Your task to perform on an android device: change text size in settings app Image 0: 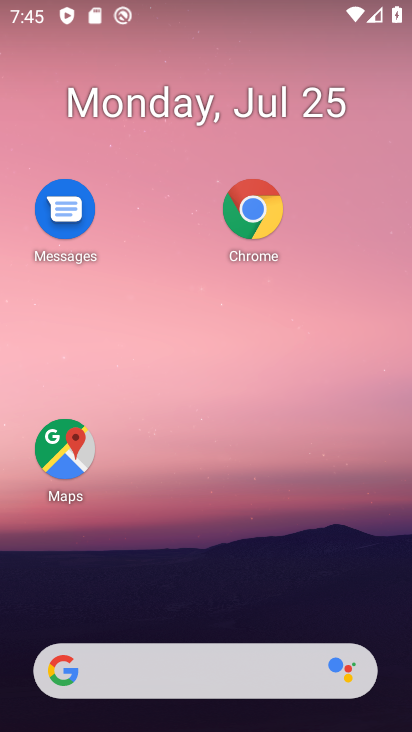
Step 0: drag from (216, 614) to (135, 73)
Your task to perform on an android device: change text size in settings app Image 1: 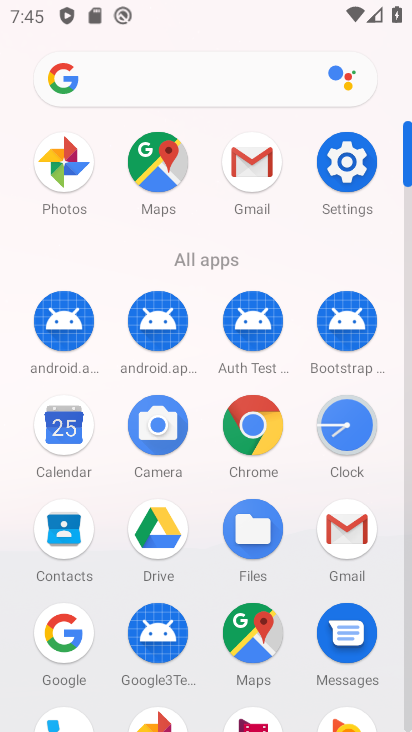
Step 1: click (355, 193)
Your task to perform on an android device: change text size in settings app Image 2: 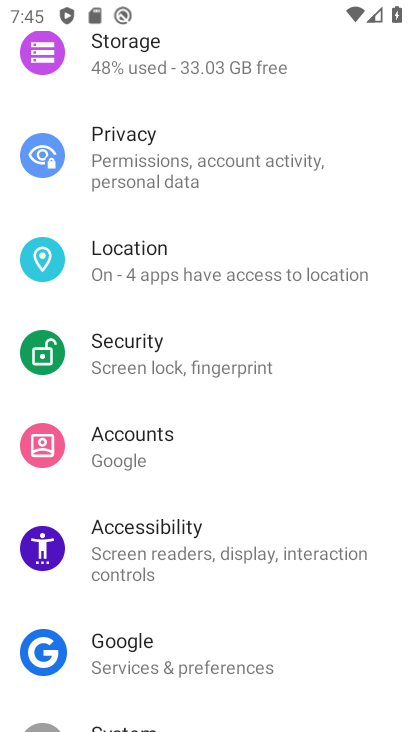
Step 2: drag from (256, 138) to (230, 554)
Your task to perform on an android device: change text size in settings app Image 3: 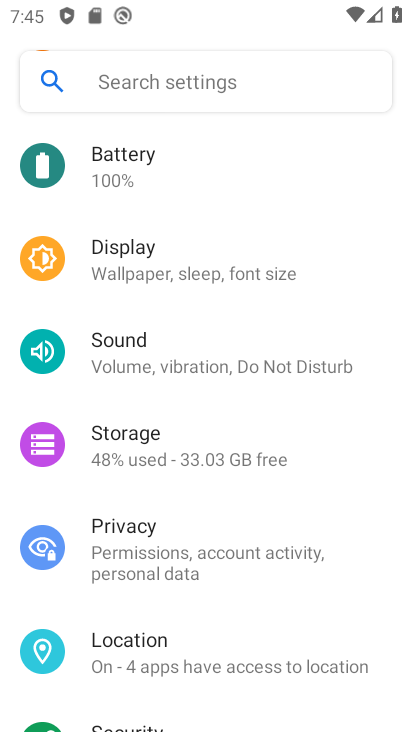
Step 3: click (194, 274)
Your task to perform on an android device: change text size in settings app Image 4: 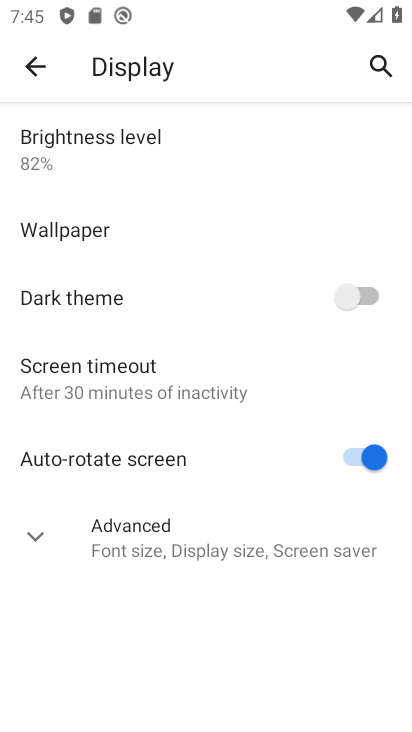
Step 4: click (130, 518)
Your task to perform on an android device: change text size in settings app Image 5: 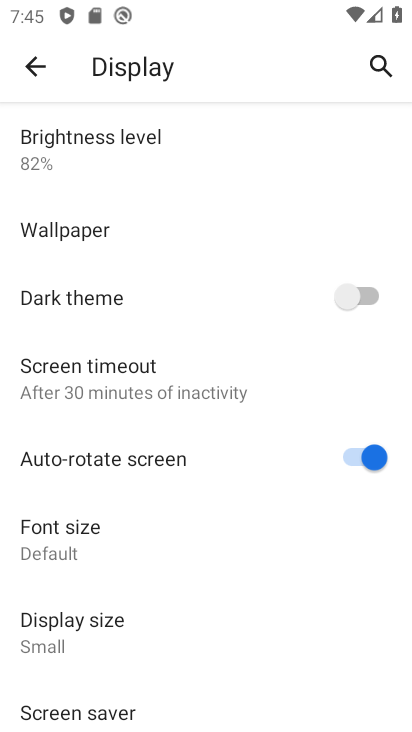
Step 5: click (95, 544)
Your task to perform on an android device: change text size in settings app Image 6: 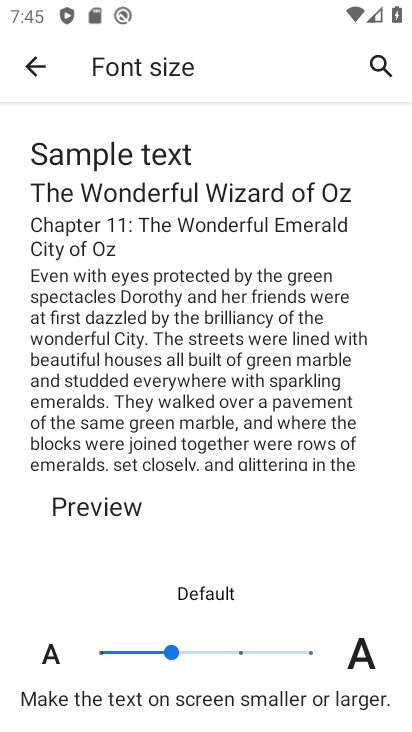
Step 6: click (102, 647)
Your task to perform on an android device: change text size in settings app Image 7: 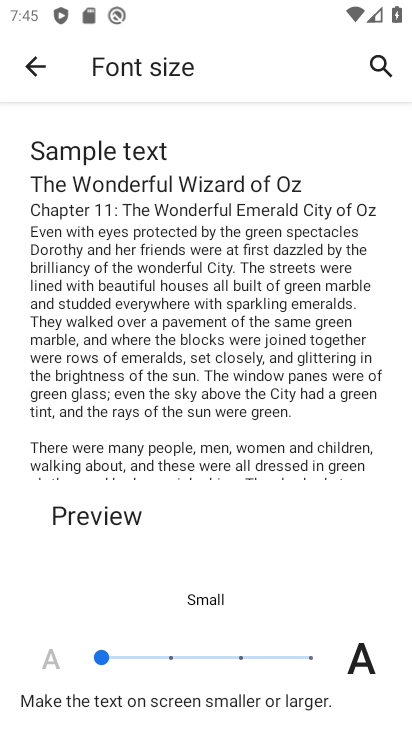
Step 7: task complete